Your task to perform on an android device: Open the stopwatch Image 0: 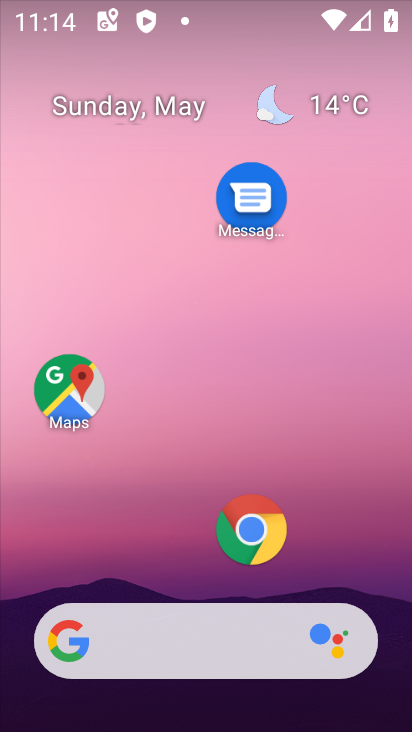
Step 0: drag from (161, 545) to (234, 1)
Your task to perform on an android device: Open the stopwatch Image 1: 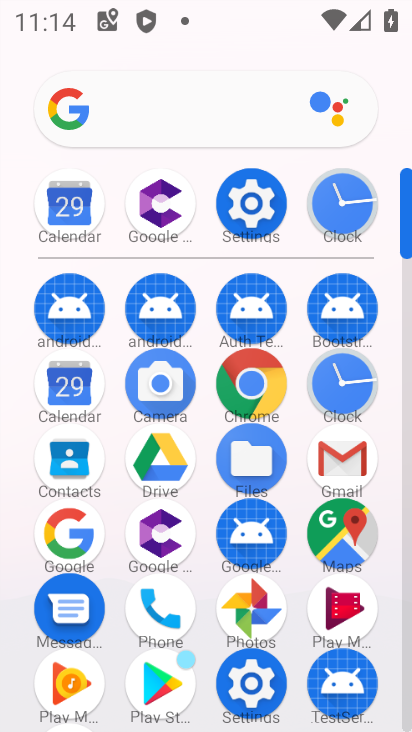
Step 1: click (357, 389)
Your task to perform on an android device: Open the stopwatch Image 2: 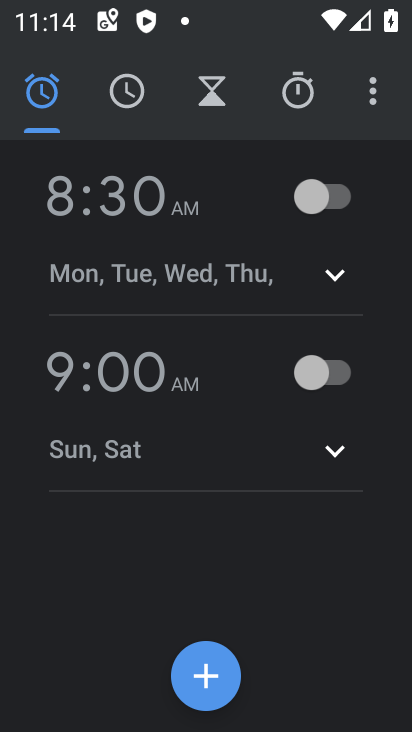
Step 2: click (296, 95)
Your task to perform on an android device: Open the stopwatch Image 3: 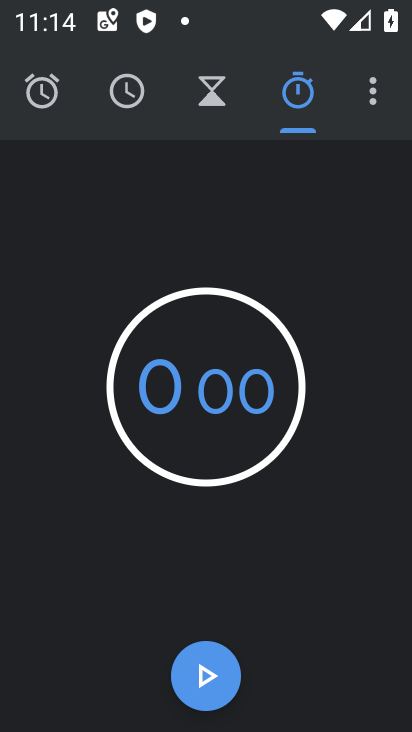
Step 3: click (209, 661)
Your task to perform on an android device: Open the stopwatch Image 4: 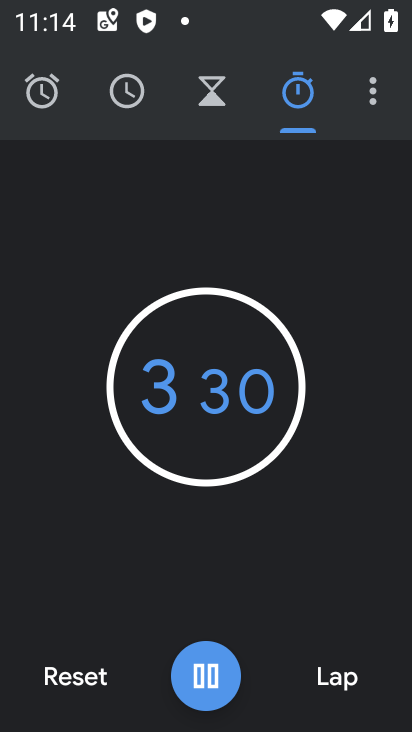
Step 4: task complete